Your task to perform on an android device: toggle notifications settings in the gmail app Image 0: 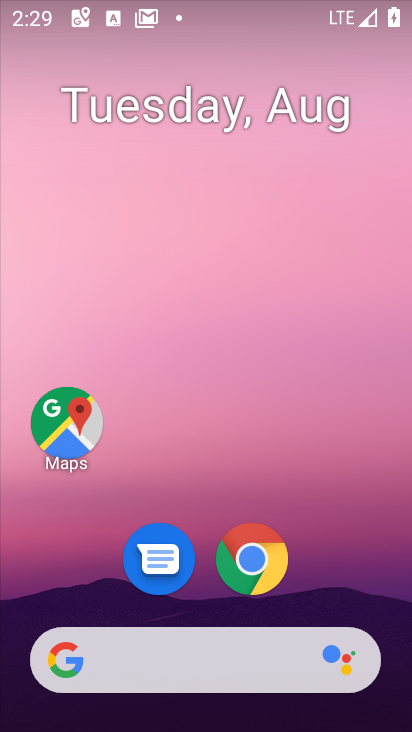
Step 0: drag from (214, 506) to (199, 130)
Your task to perform on an android device: toggle notifications settings in the gmail app Image 1: 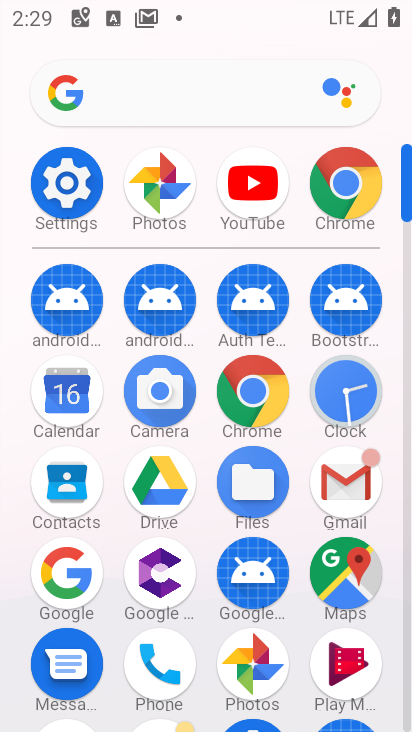
Step 1: click (344, 473)
Your task to perform on an android device: toggle notifications settings in the gmail app Image 2: 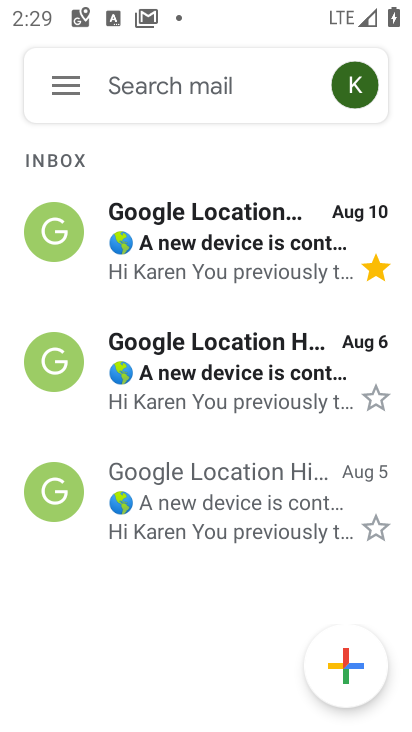
Step 2: click (70, 75)
Your task to perform on an android device: toggle notifications settings in the gmail app Image 3: 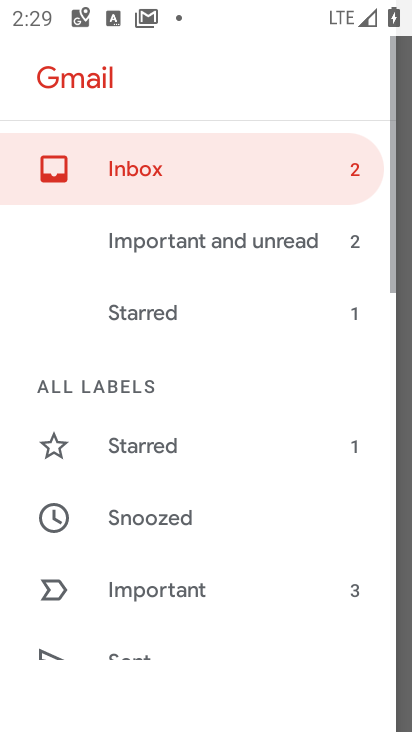
Step 3: drag from (200, 583) to (226, 191)
Your task to perform on an android device: toggle notifications settings in the gmail app Image 4: 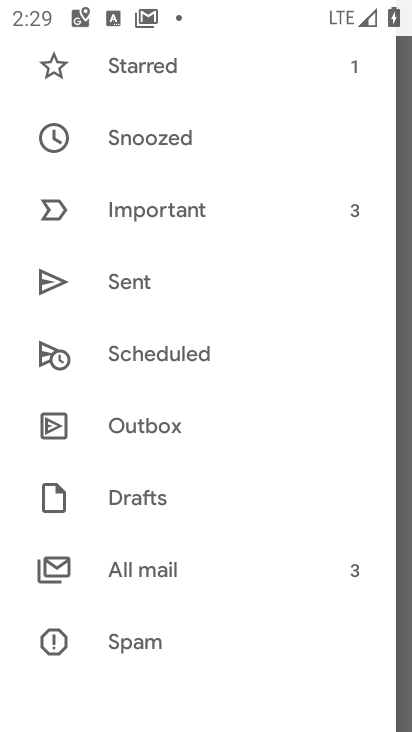
Step 4: drag from (202, 621) to (195, 253)
Your task to perform on an android device: toggle notifications settings in the gmail app Image 5: 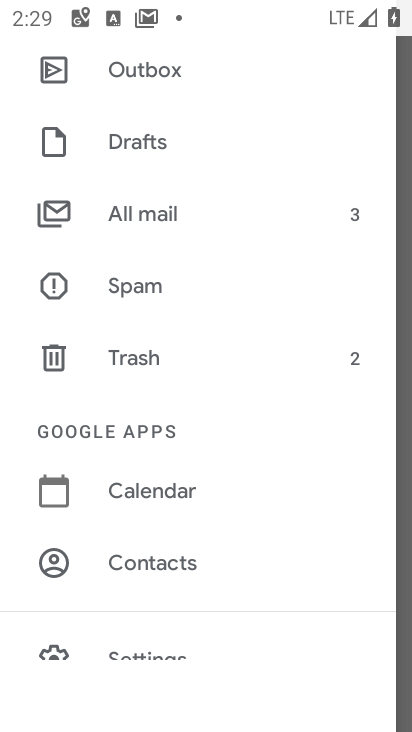
Step 5: drag from (177, 613) to (174, 381)
Your task to perform on an android device: toggle notifications settings in the gmail app Image 6: 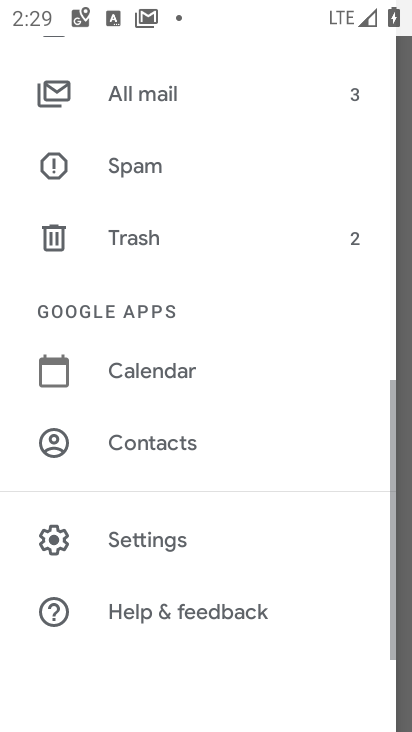
Step 6: click (167, 547)
Your task to perform on an android device: toggle notifications settings in the gmail app Image 7: 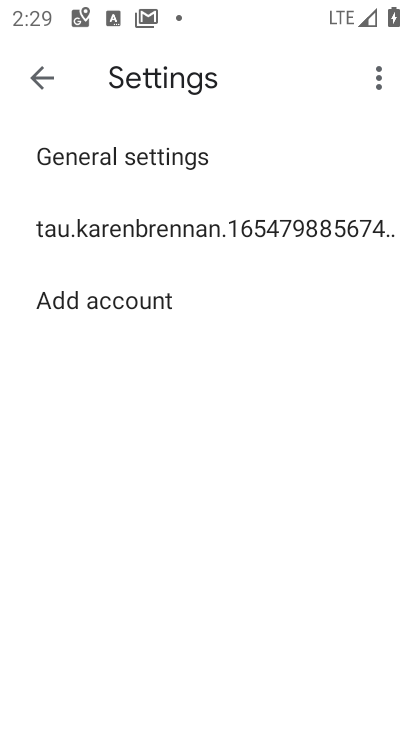
Step 7: click (181, 232)
Your task to perform on an android device: toggle notifications settings in the gmail app Image 8: 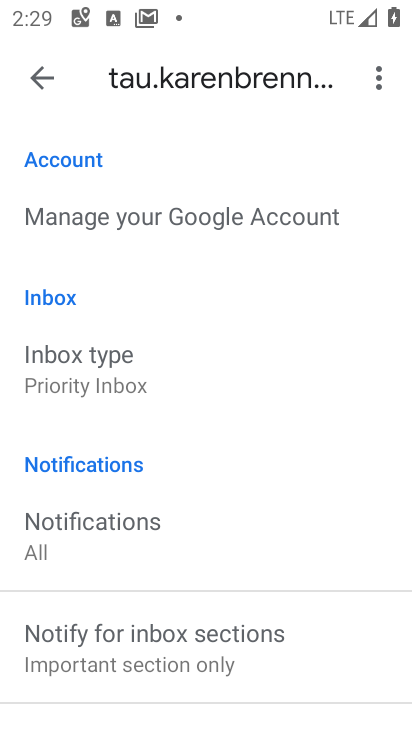
Step 8: drag from (188, 620) to (193, 315)
Your task to perform on an android device: toggle notifications settings in the gmail app Image 9: 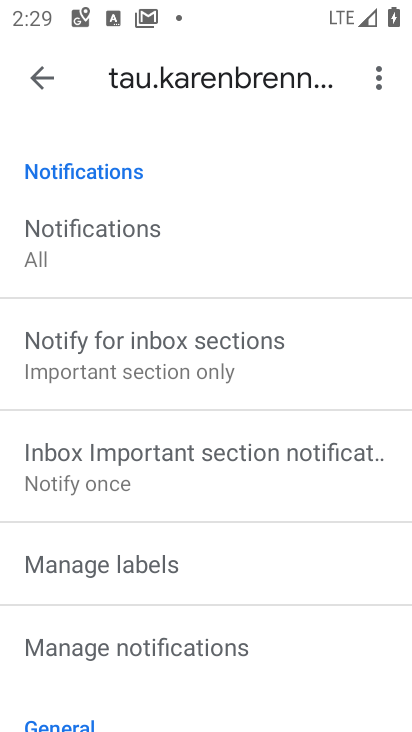
Step 9: click (201, 639)
Your task to perform on an android device: toggle notifications settings in the gmail app Image 10: 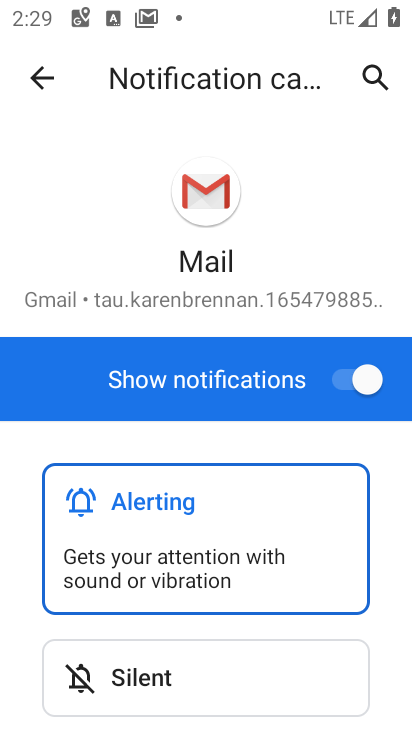
Step 10: click (347, 385)
Your task to perform on an android device: toggle notifications settings in the gmail app Image 11: 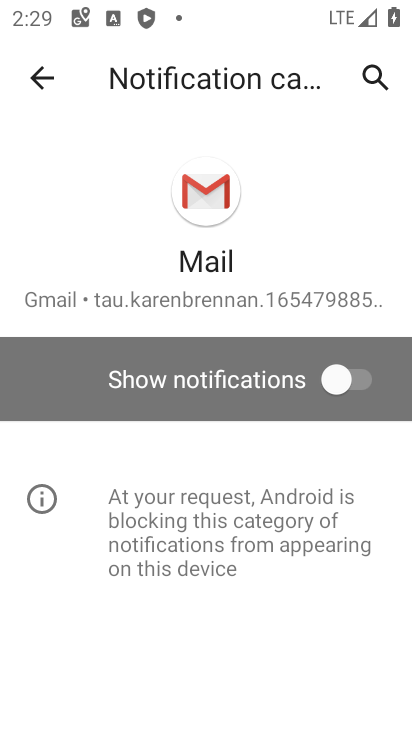
Step 11: task complete